Your task to perform on an android device: Open battery settings Image 0: 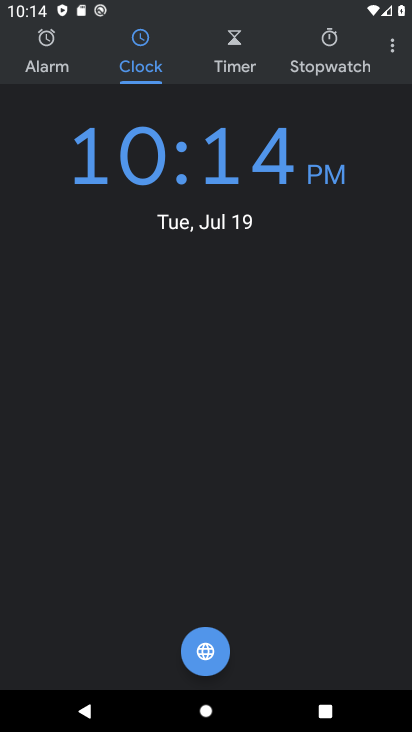
Step 0: press home button
Your task to perform on an android device: Open battery settings Image 1: 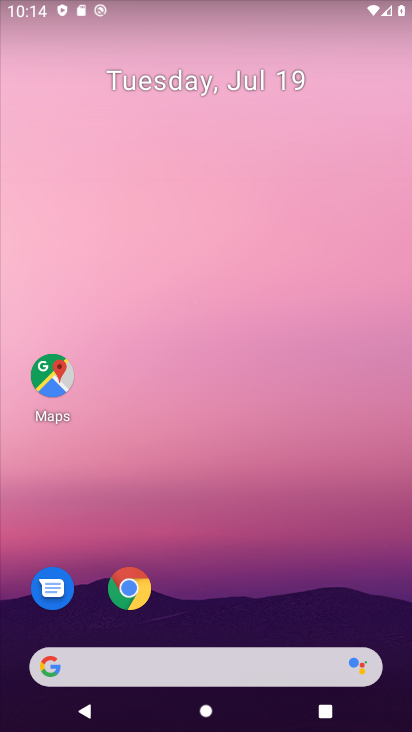
Step 1: drag from (350, 536) to (253, 82)
Your task to perform on an android device: Open battery settings Image 2: 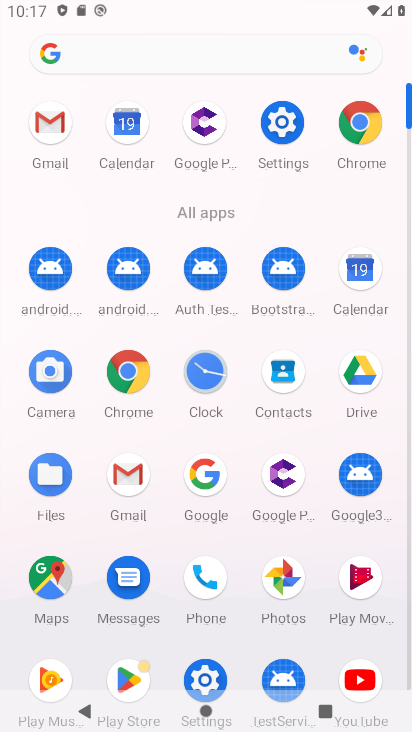
Step 2: click (212, 669)
Your task to perform on an android device: Open battery settings Image 3: 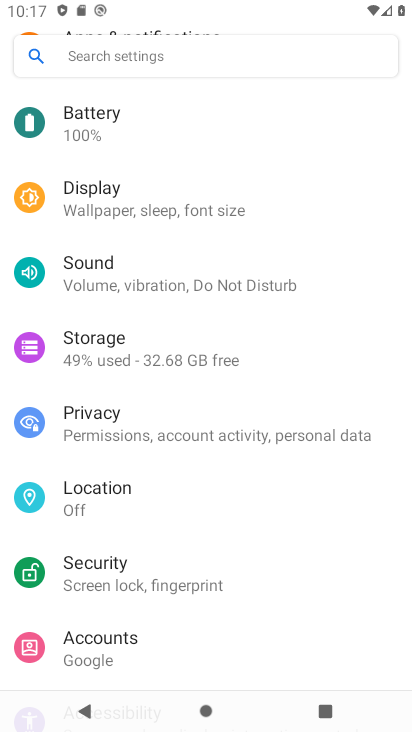
Step 3: click (102, 136)
Your task to perform on an android device: Open battery settings Image 4: 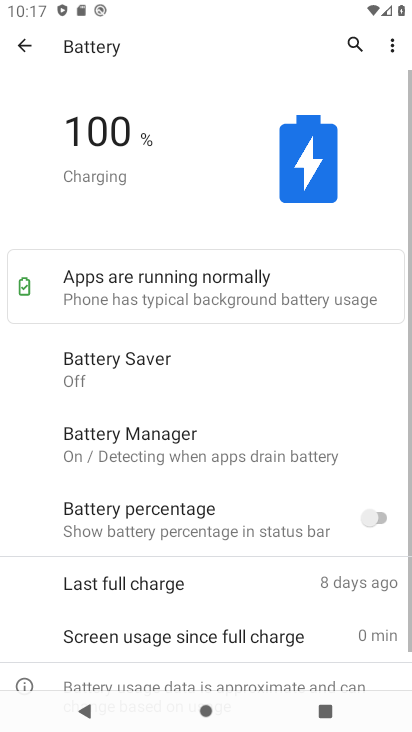
Step 4: task complete